Your task to perform on an android device: move a message to another label in the gmail app Image 0: 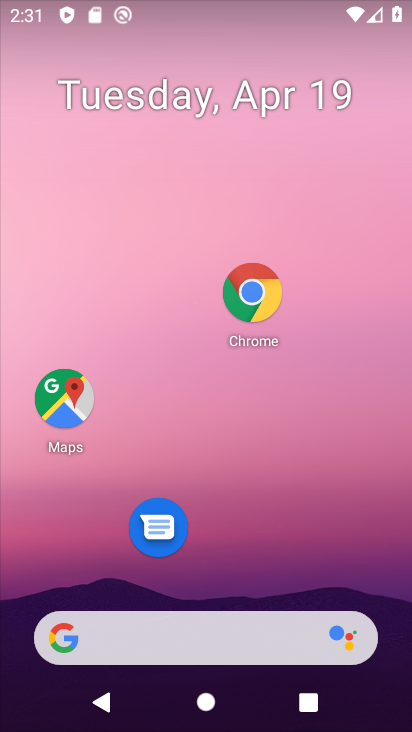
Step 0: drag from (223, 414) to (216, 139)
Your task to perform on an android device: move a message to another label in the gmail app Image 1: 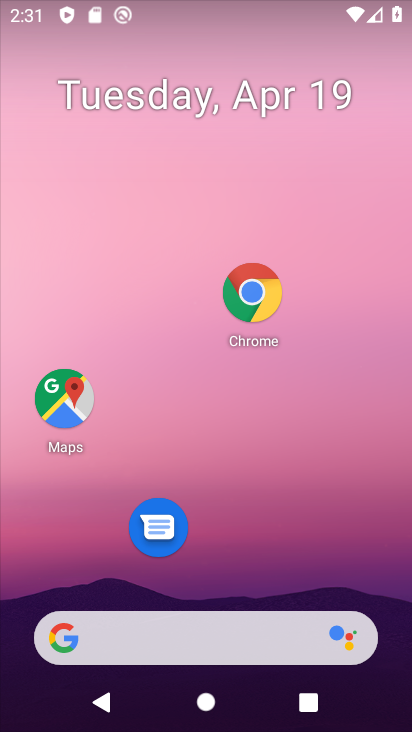
Step 1: drag from (223, 593) to (182, 209)
Your task to perform on an android device: move a message to another label in the gmail app Image 2: 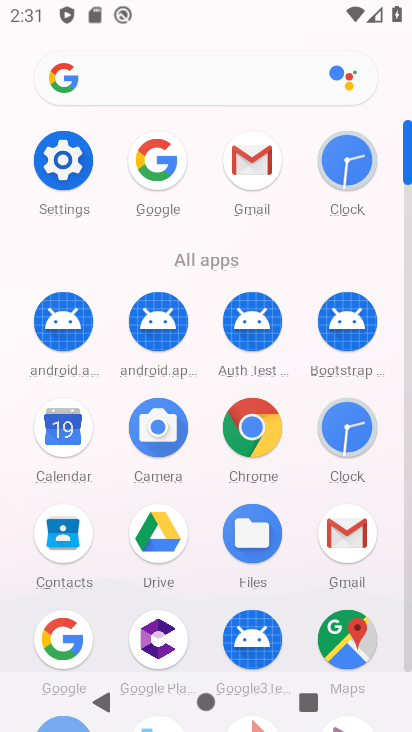
Step 2: click (252, 162)
Your task to perform on an android device: move a message to another label in the gmail app Image 3: 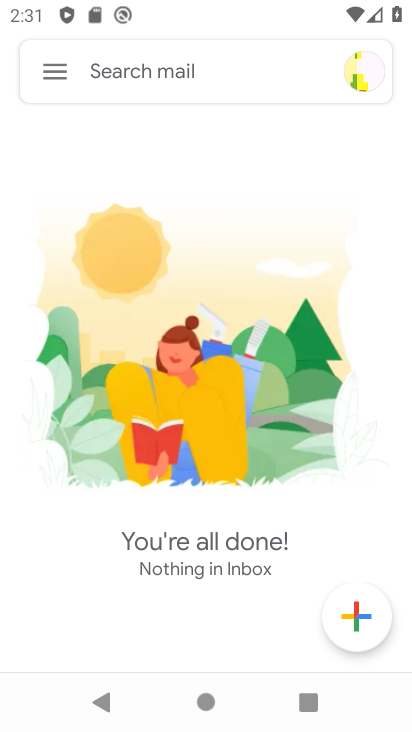
Step 3: task complete